Your task to perform on an android device: turn on priority inbox in the gmail app Image 0: 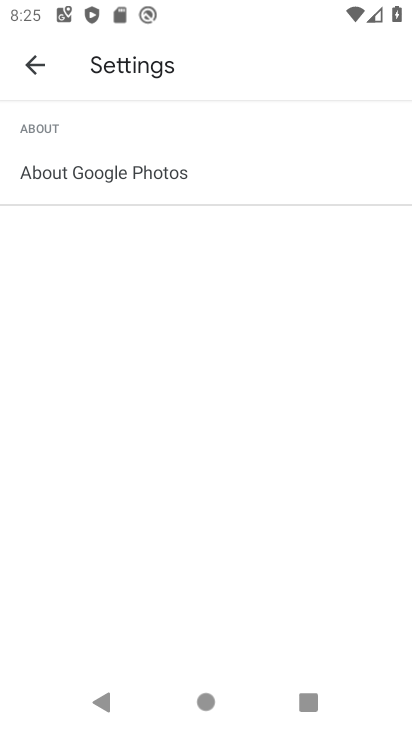
Step 0: press home button
Your task to perform on an android device: turn on priority inbox in the gmail app Image 1: 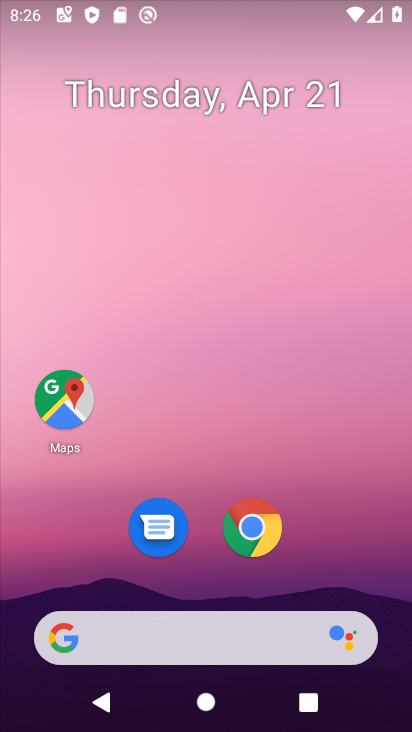
Step 1: drag from (299, 617) to (379, 2)
Your task to perform on an android device: turn on priority inbox in the gmail app Image 2: 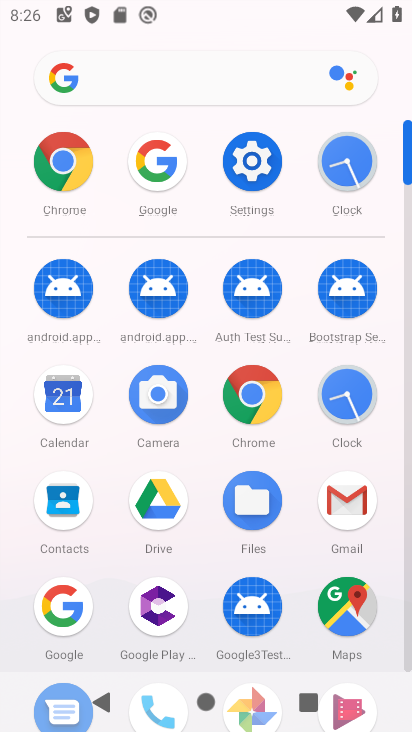
Step 2: click (355, 521)
Your task to perform on an android device: turn on priority inbox in the gmail app Image 3: 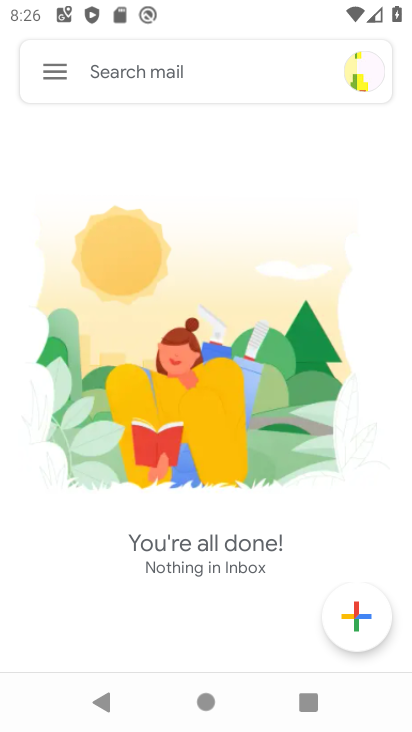
Step 3: click (51, 71)
Your task to perform on an android device: turn on priority inbox in the gmail app Image 4: 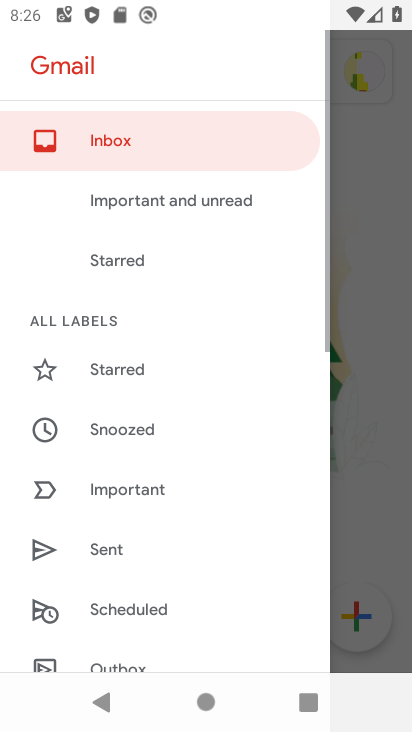
Step 4: drag from (200, 497) to (290, 6)
Your task to perform on an android device: turn on priority inbox in the gmail app Image 5: 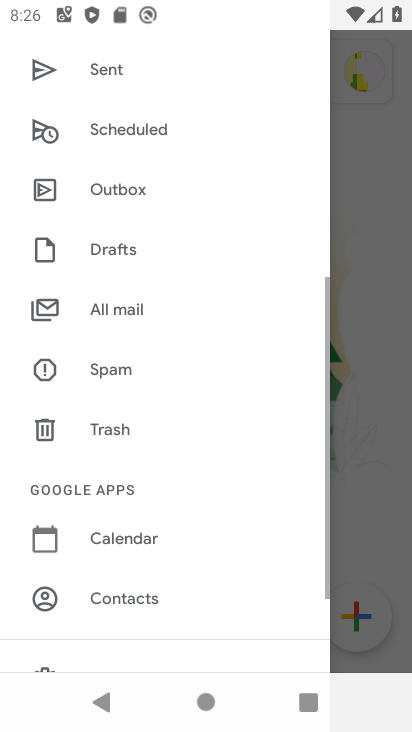
Step 5: drag from (193, 557) to (330, 117)
Your task to perform on an android device: turn on priority inbox in the gmail app Image 6: 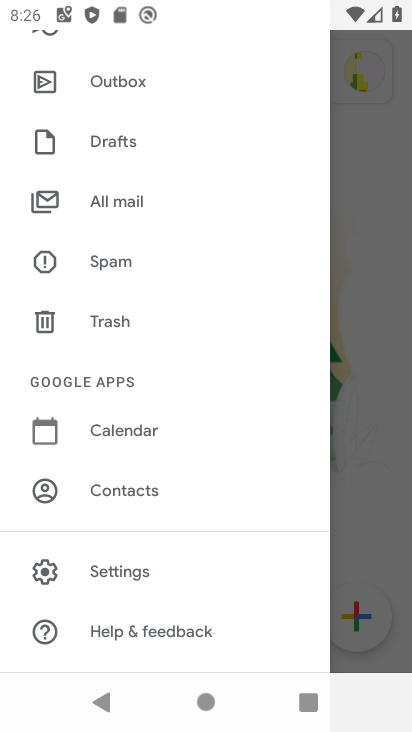
Step 6: click (208, 566)
Your task to perform on an android device: turn on priority inbox in the gmail app Image 7: 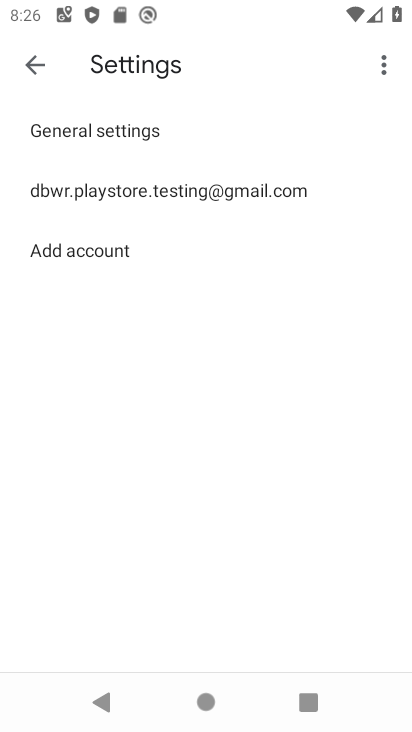
Step 7: click (220, 196)
Your task to perform on an android device: turn on priority inbox in the gmail app Image 8: 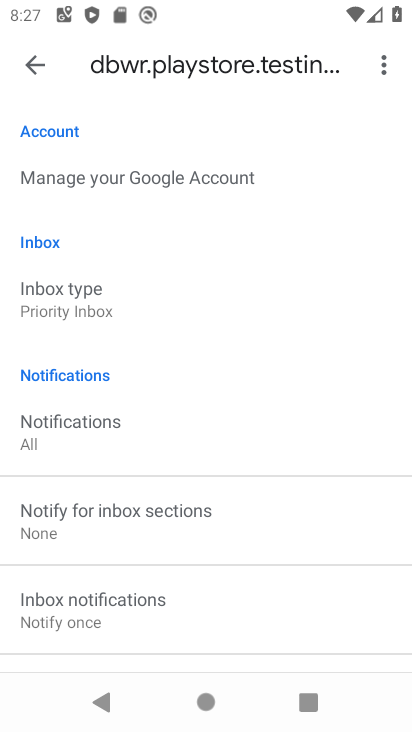
Step 8: click (182, 308)
Your task to perform on an android device: turn on priority inbox in the gmail app Image 9: 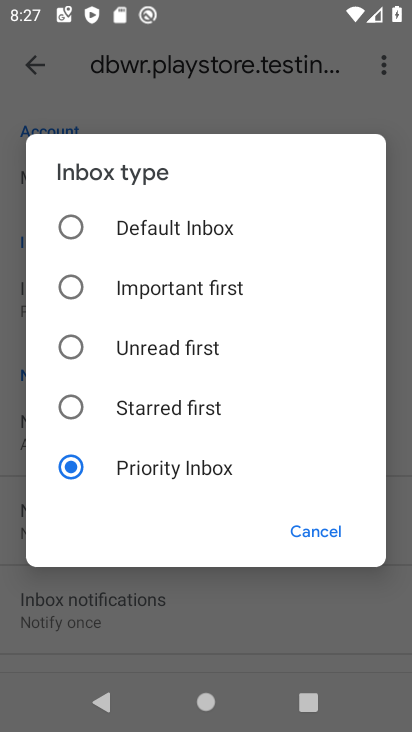
Step 9: task complete